Your task to perform on an android device: Go to Google Image 0: 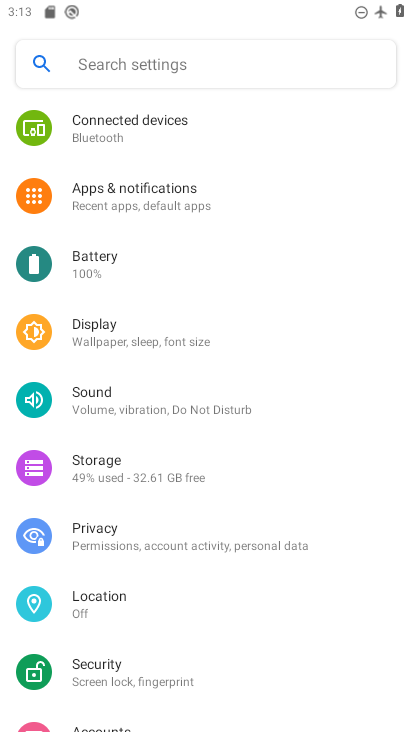
Step 0: press home button
Your task to perform on an android device: Go to Google Image 1: 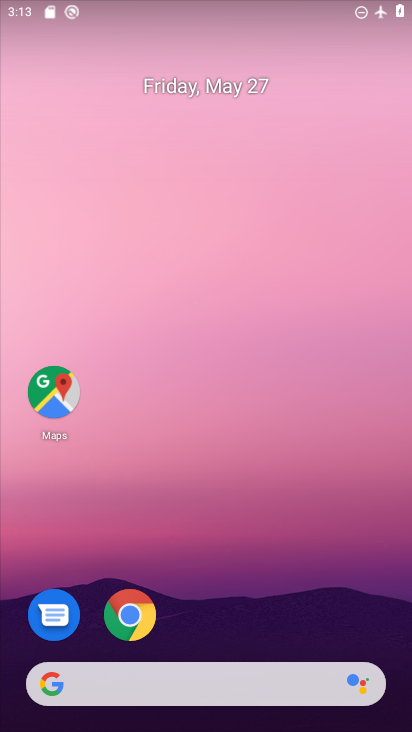
Step 1: drag from (293, 552) to (174, 21)
Your task to perform on an android device: Go to Google Image 2: 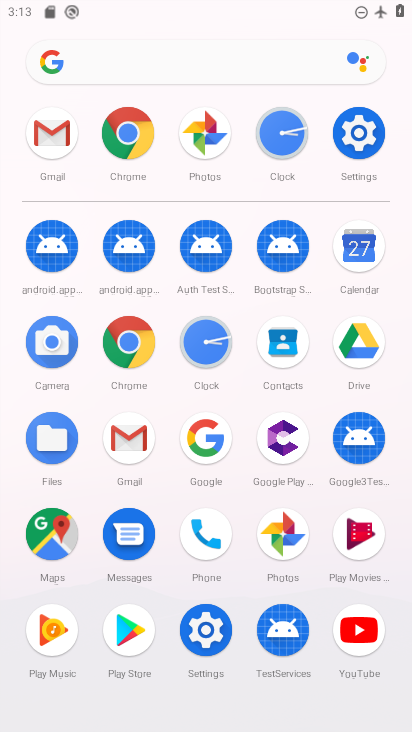
Step 2: click (201, 436)
Your task to perform on an android device: Go to Google Image 3: 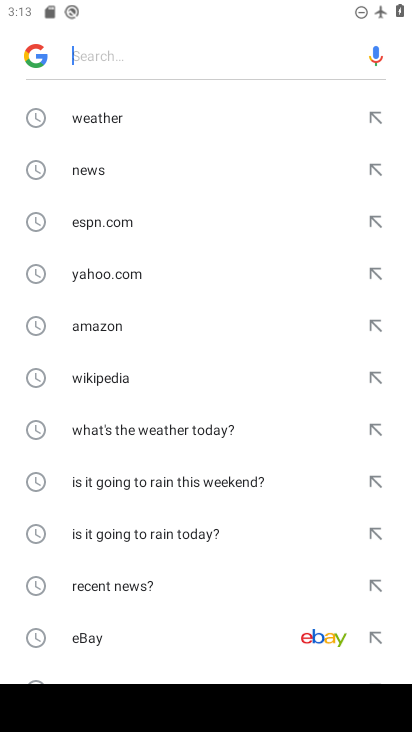
Step 3: task complete